Your task to perform on an android device: Go to Google Image 0: 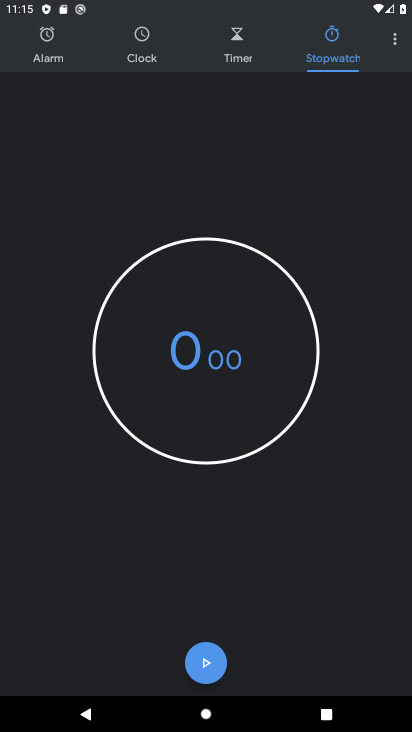
Step 0: press home button
Your task to perform on an android device: Go to Google Image 1: 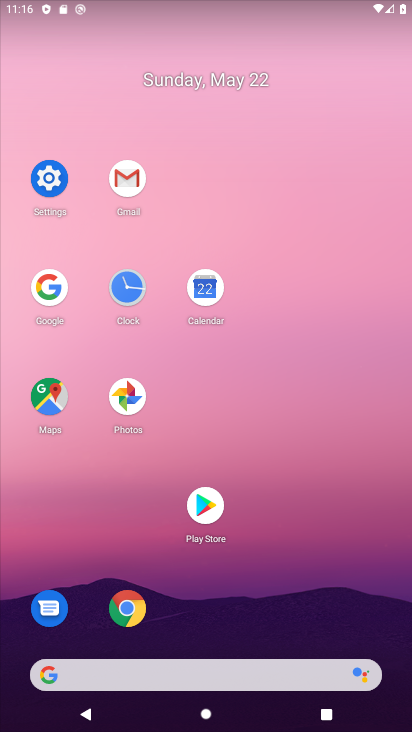
Step 1: click (67, 280)
Your task to perform on an android device: Go to Google Image 2: 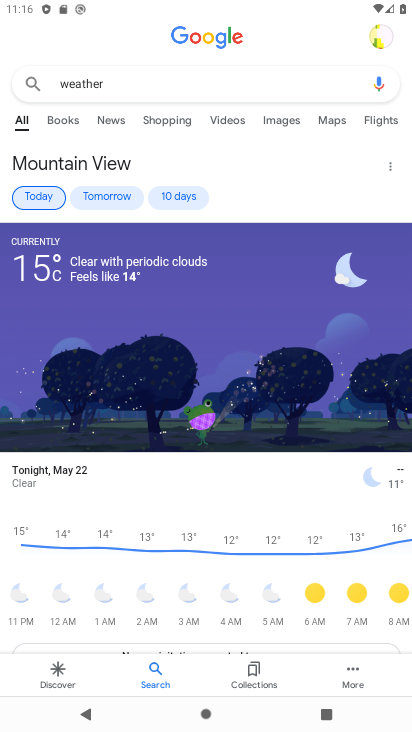
Step 2: task complete